Your task to perform on an android device: Open the calendar app, open the side menu, and click the "Day" option Image 0: 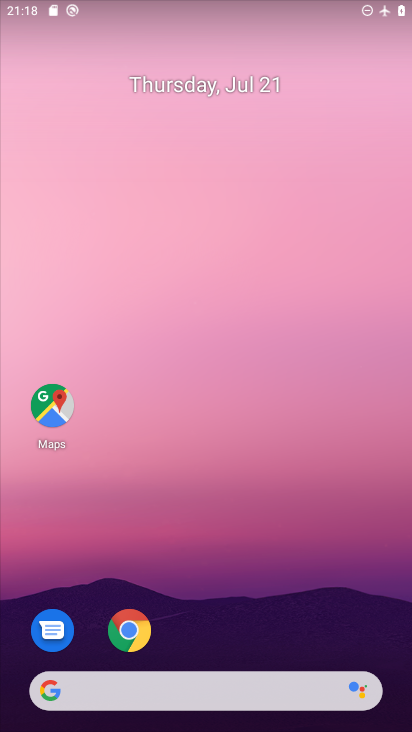
Step 0: drag from (299, 595) to (254, 44)
Your task to perform on an android device: Open the calendar app, open the side menu, and click the "Day" option Image 1: 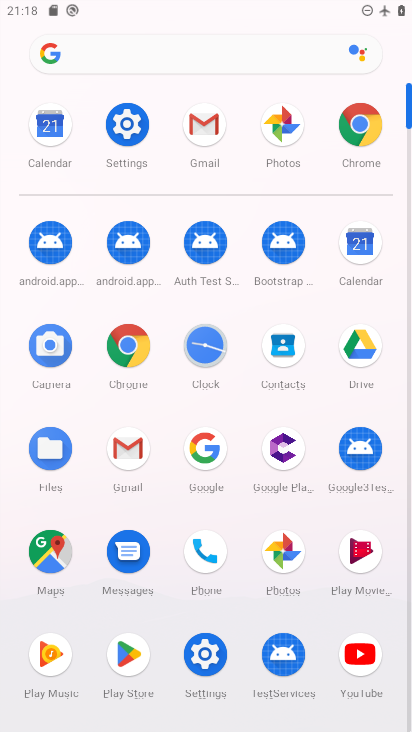
Step 1: click (349, 237)
Your task to perform on an android device: Open the calendar app, open the side menu, and click the "Day" option Image 2: 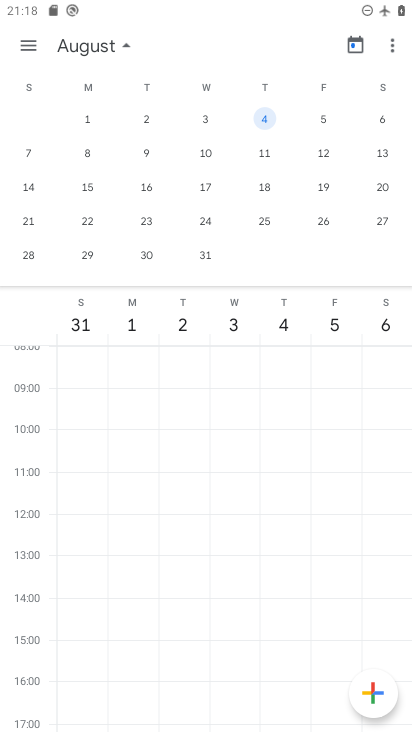
Step 2: click (21, 39)
Your task to perform on an android device: Open the calendar app, open the side menu, and click the "Day" option Image 3: 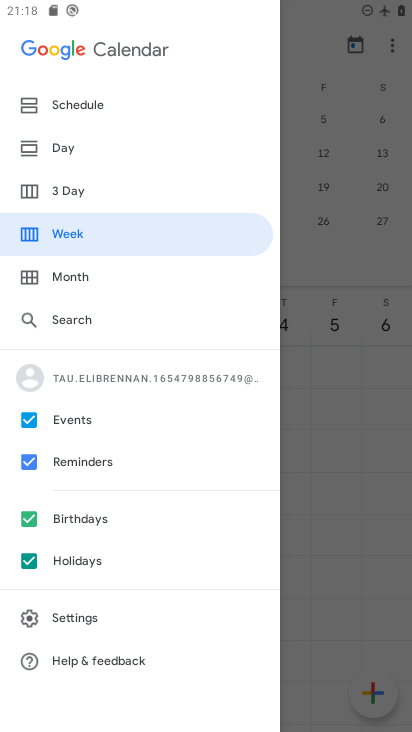
Step 3: click (73, 157)
Your task to perform on an android device: Open the calendar app, open the side menu, and click the "Day" option Image 4: 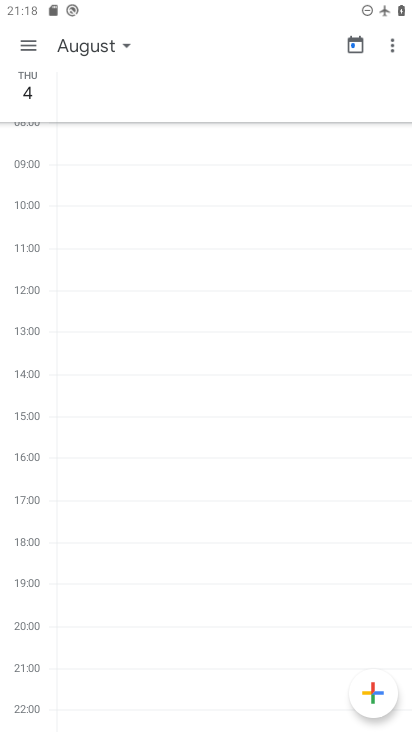
Step 4: task complete